Your task to perform on an android device: Open CNN.com Image 0: 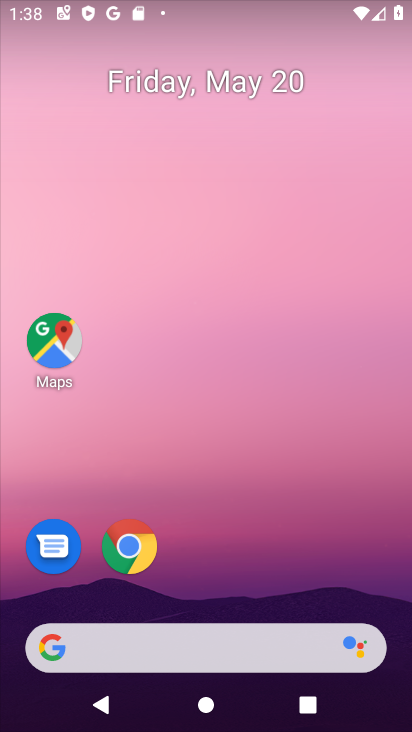
Step 0: drag from (238, 619) to (304, 19)
Your task to perform on an android device: Open CNN.com Image 1: 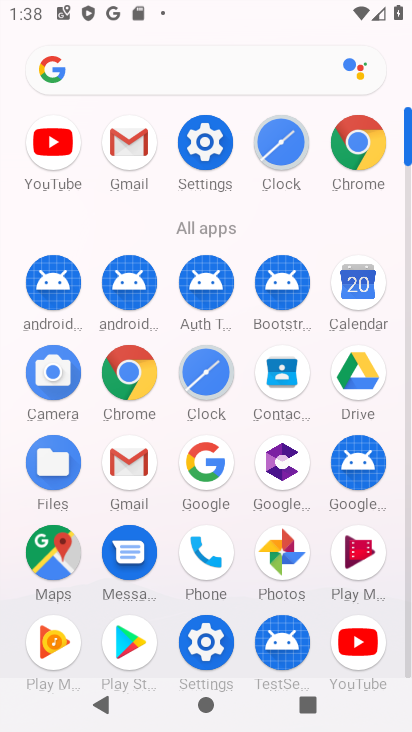
Step 1: click (125, 363)
Your task to perform on an android device: Open CNN.com Image 2: 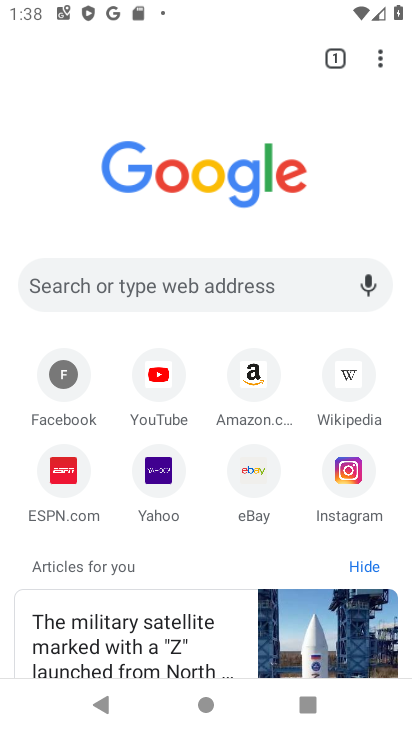
Step 2: click (148, 287)
Your task to perform on an android device: Open CNN.com Image 3: 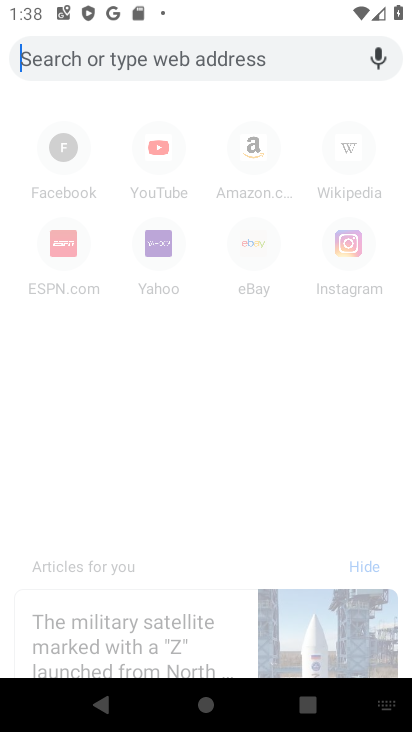
Step 3: type "cnn.com"
Your task to perform on an android device: Open CNN.com Image 4: 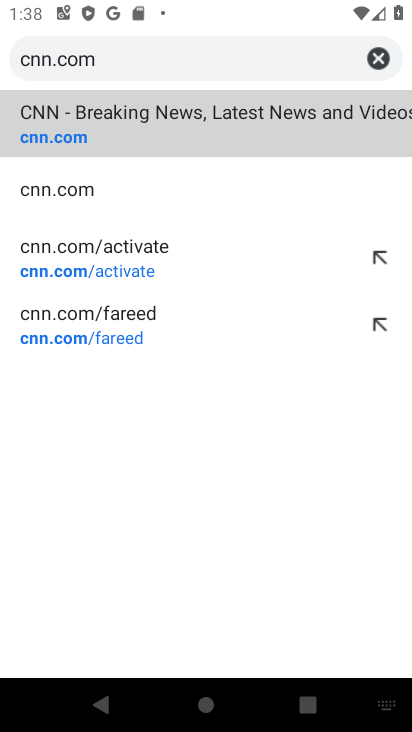
Step 4: click (193, 125)
Your task to perform on an android device: Open CNN.com Image 5: 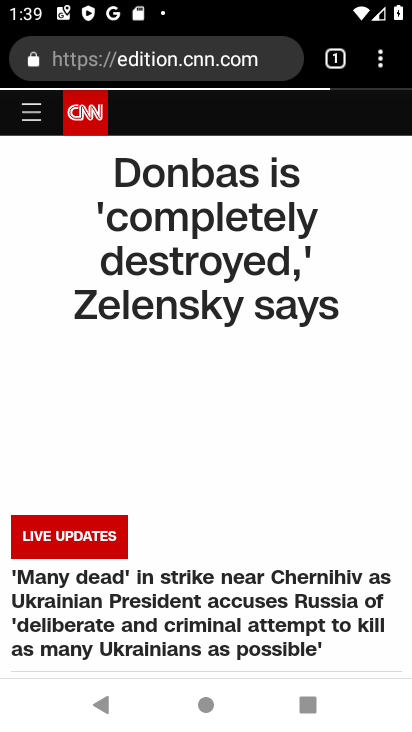
Step 5: task complete